Your task to perform on an android device: Add "lenovo thinkpad" to the cart on bestbuy.com, then select checkout. Image 0: 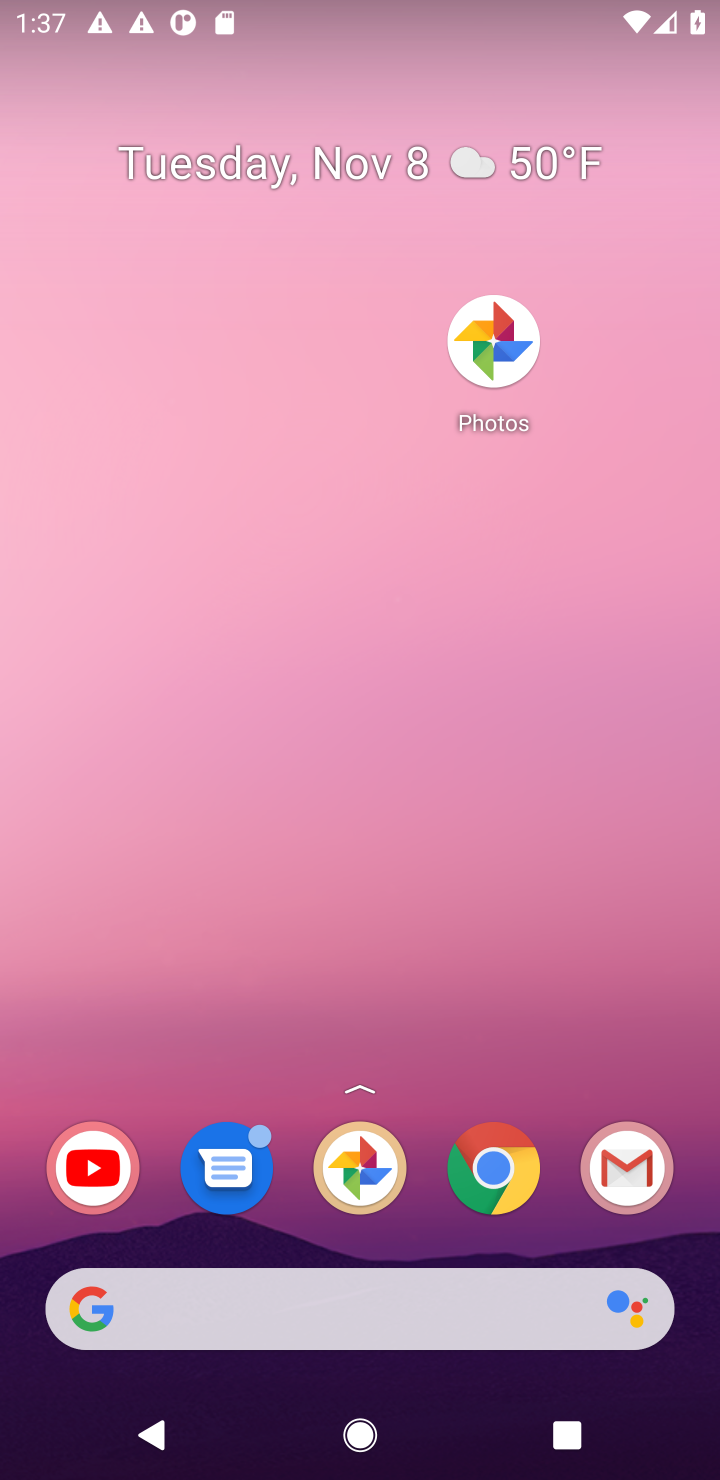
Step 0: drag from (324, 1054) to (281, 66)
Your task to perform on an android device: Add "lenovo thinkpad" to the cart on bestbuy.com, then select checkout. Image 1: 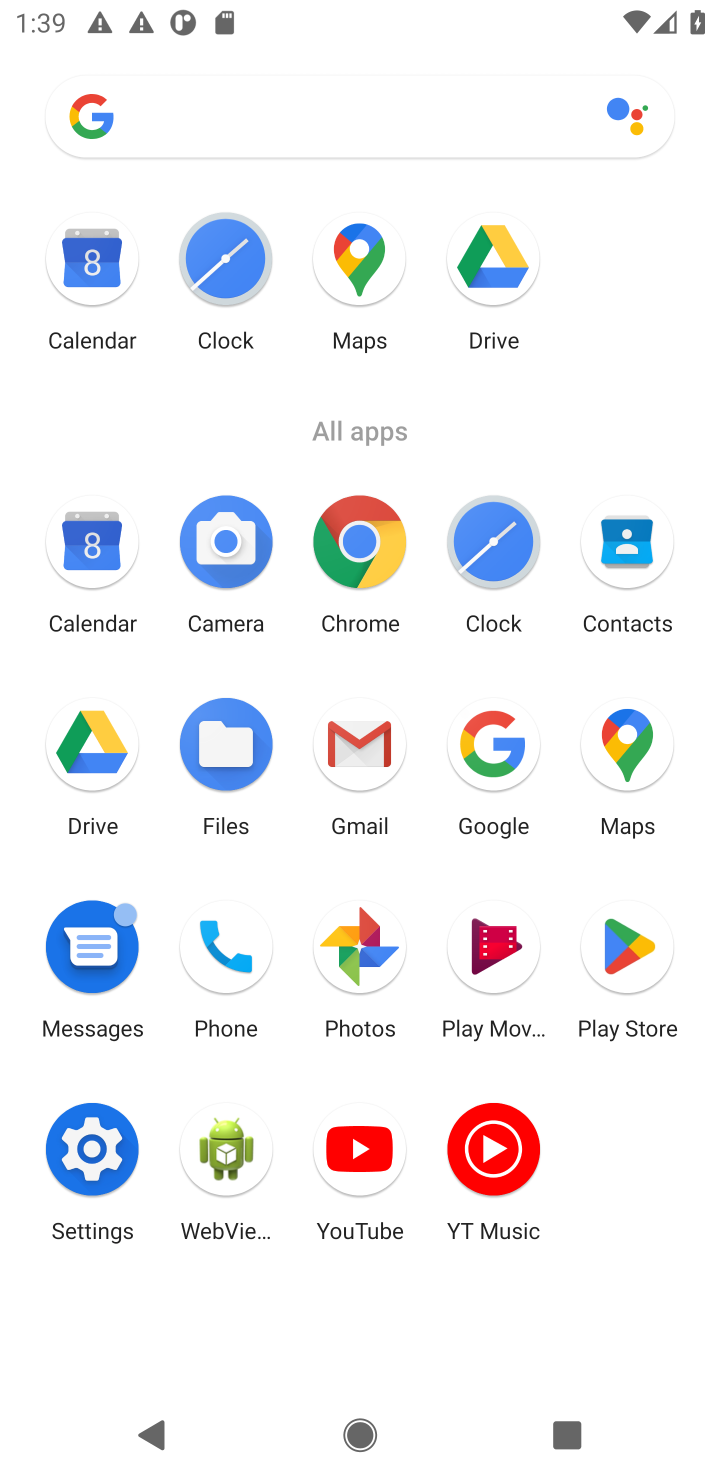
Step 1: click (368, 511)
Your task to perform on an android device: Add "lenovo thinkpad" to the cart on bestbuy.com, then select checkout. Image 2: 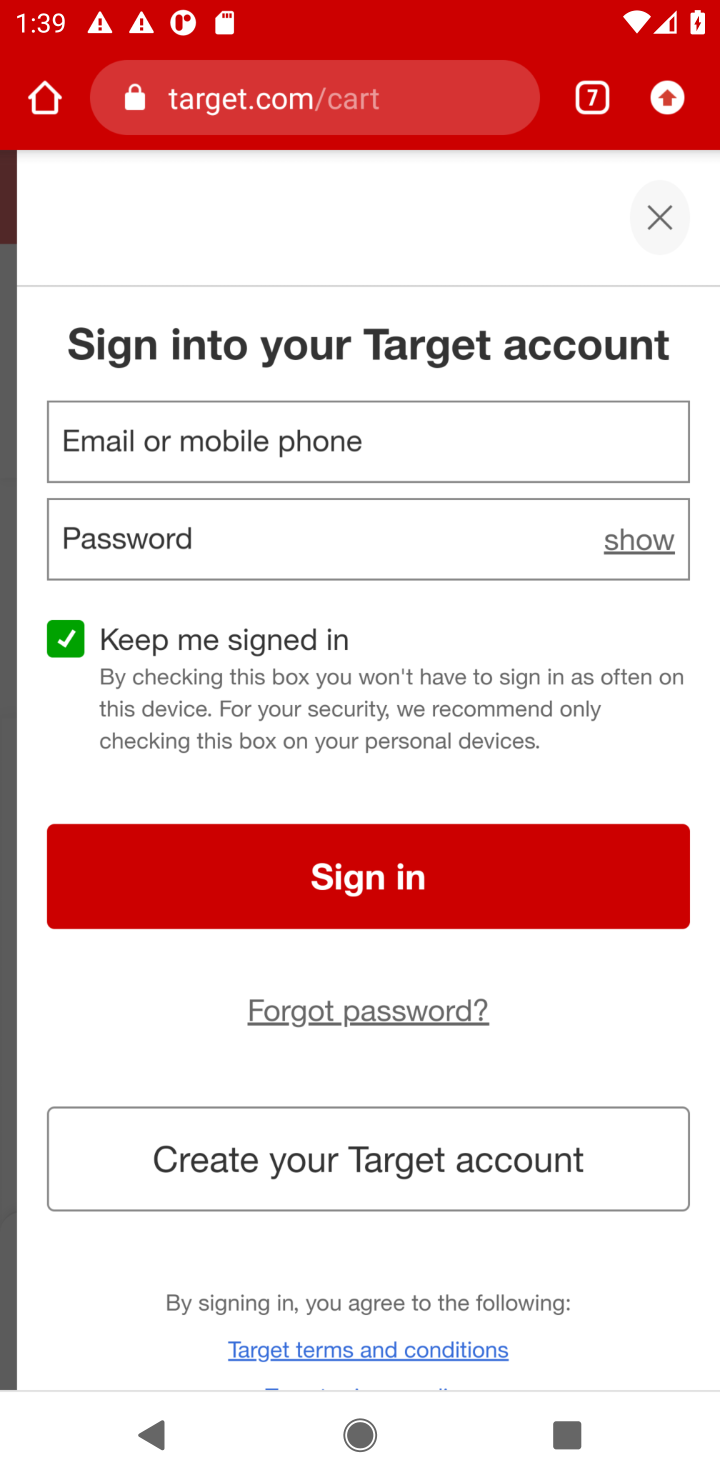
Step 2: click (368, 513)
Your task to perform on an android device: Add "lenovo thinkpad" to the cart on bestbuy.com, then select checkout. Image 3: 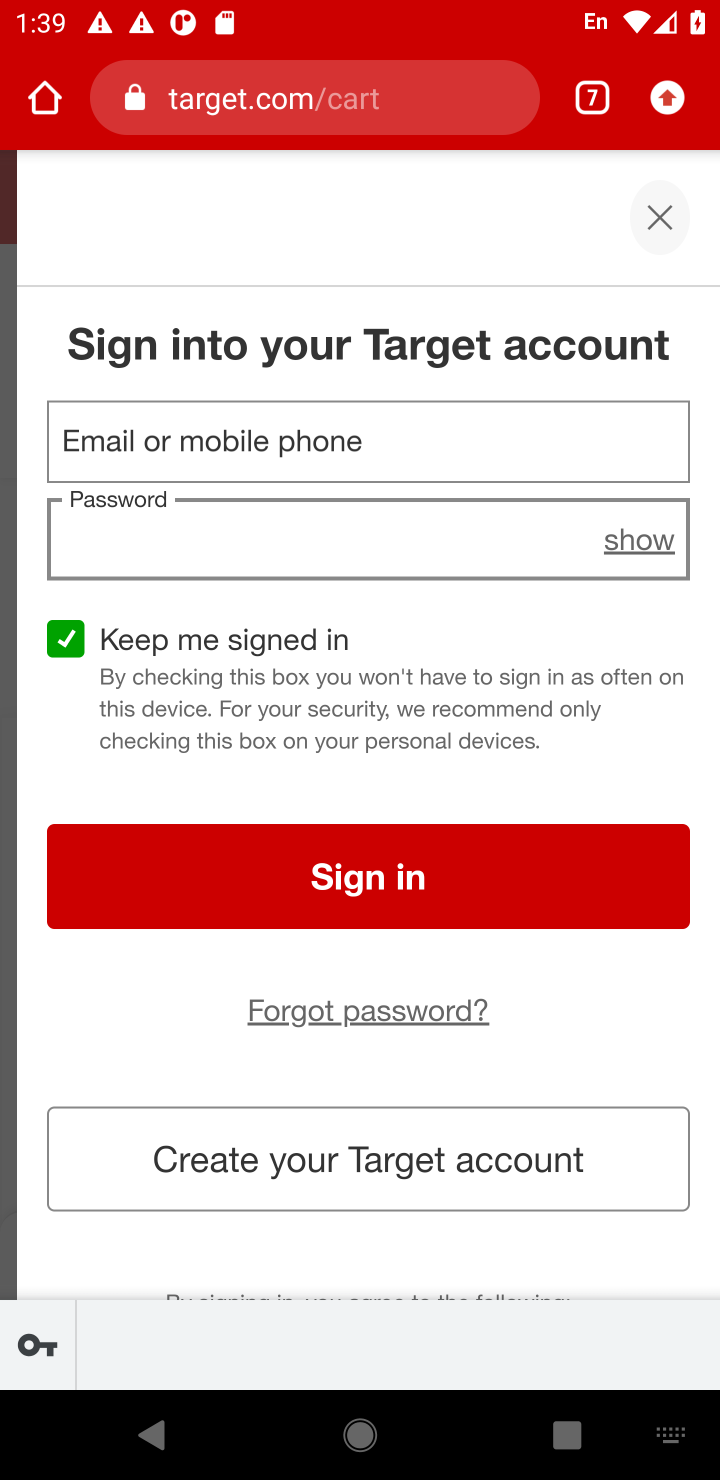
Step 3: click (277, 106)
Your task to perform on an android device: Add "lenovo thinkpad" to the cart on bestbuy.com, then select checkout. Image 4: 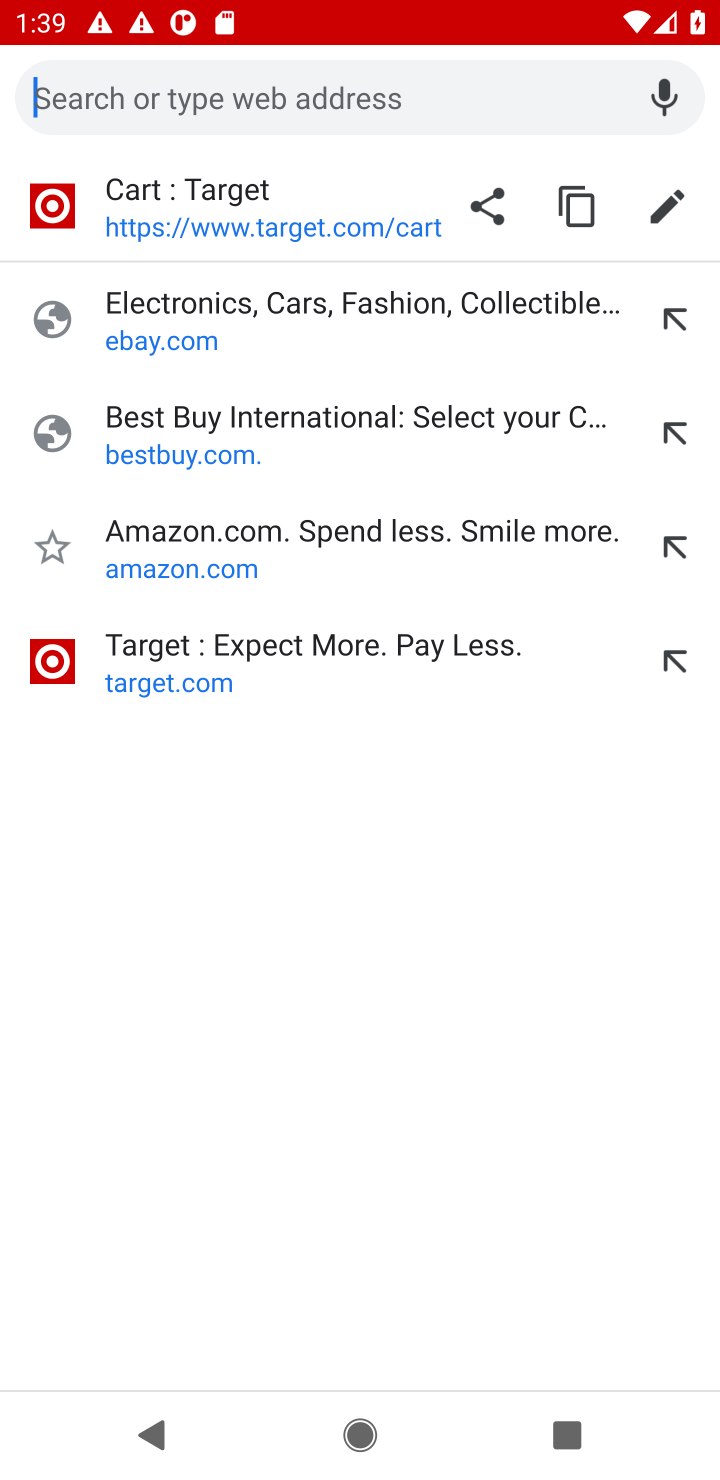
Step 4: press enter
Your task to perform on an android device: Add "lenovo thinkpad" to the cart on bestbuy.com, then select checkout. Image 5: 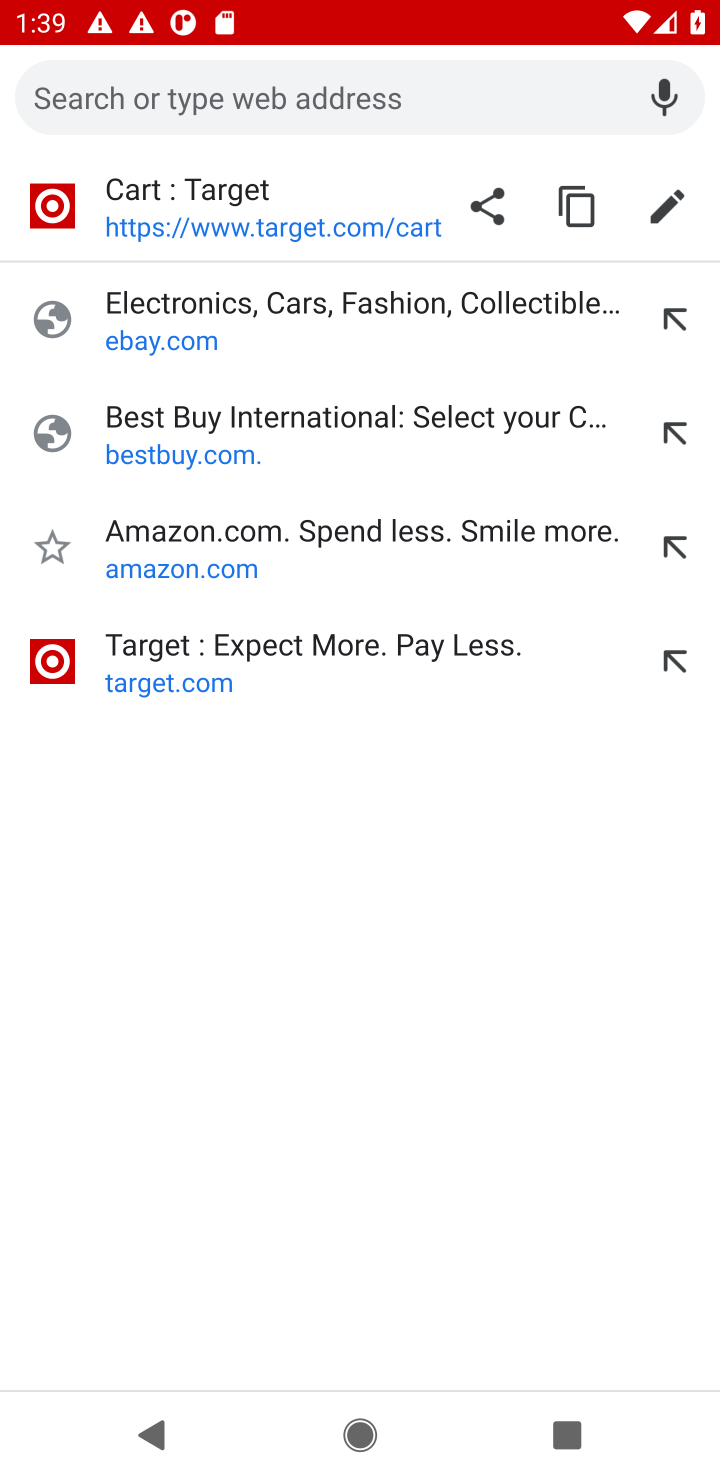
Step 5: type "bestbuy.com,"
Your task to perform on an android device: Add "lenovo thinkpad" to the cart on bestbuy.com, then select checkout. Image 6: 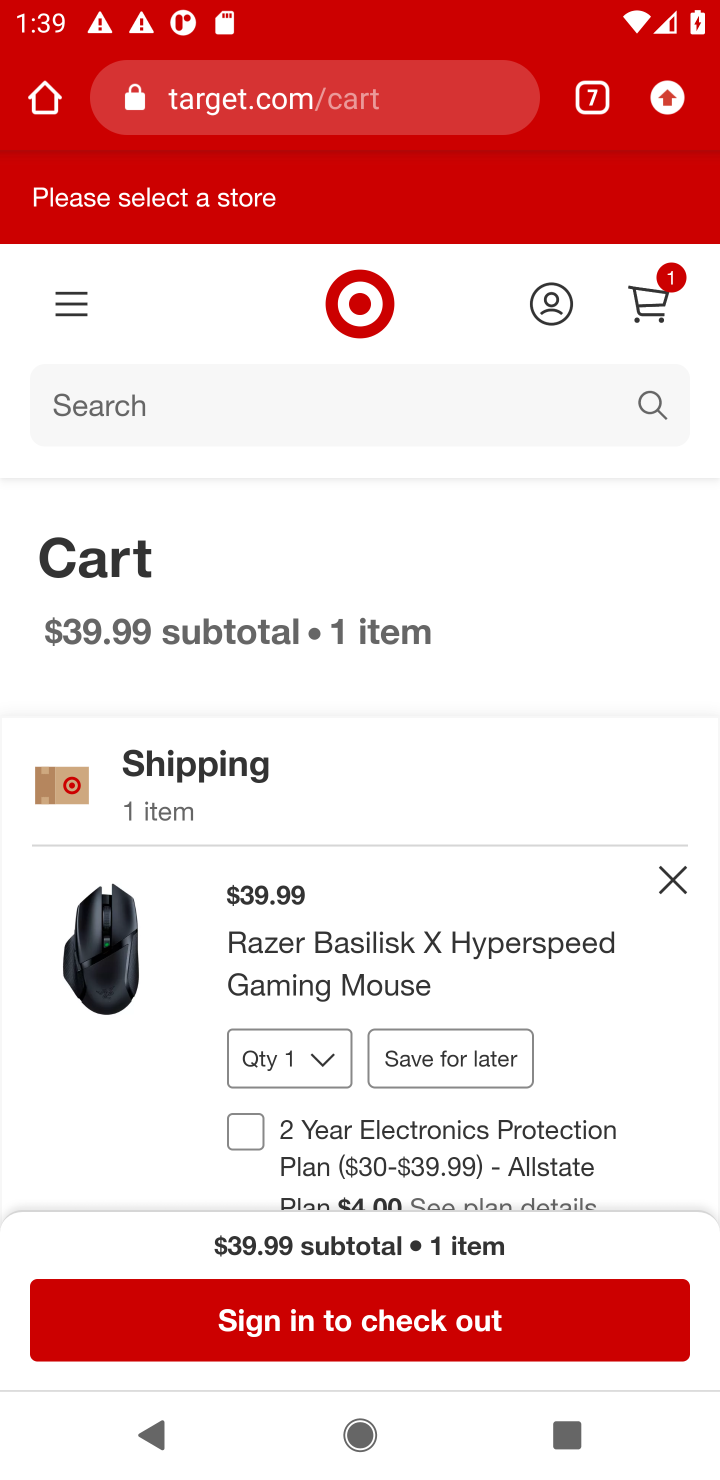
Step 6: click (451, 417)
Your task to perform on an android device: Add "lenovo thinkpad" to the cart on bestbuy.com, then select checkout. Image 7: 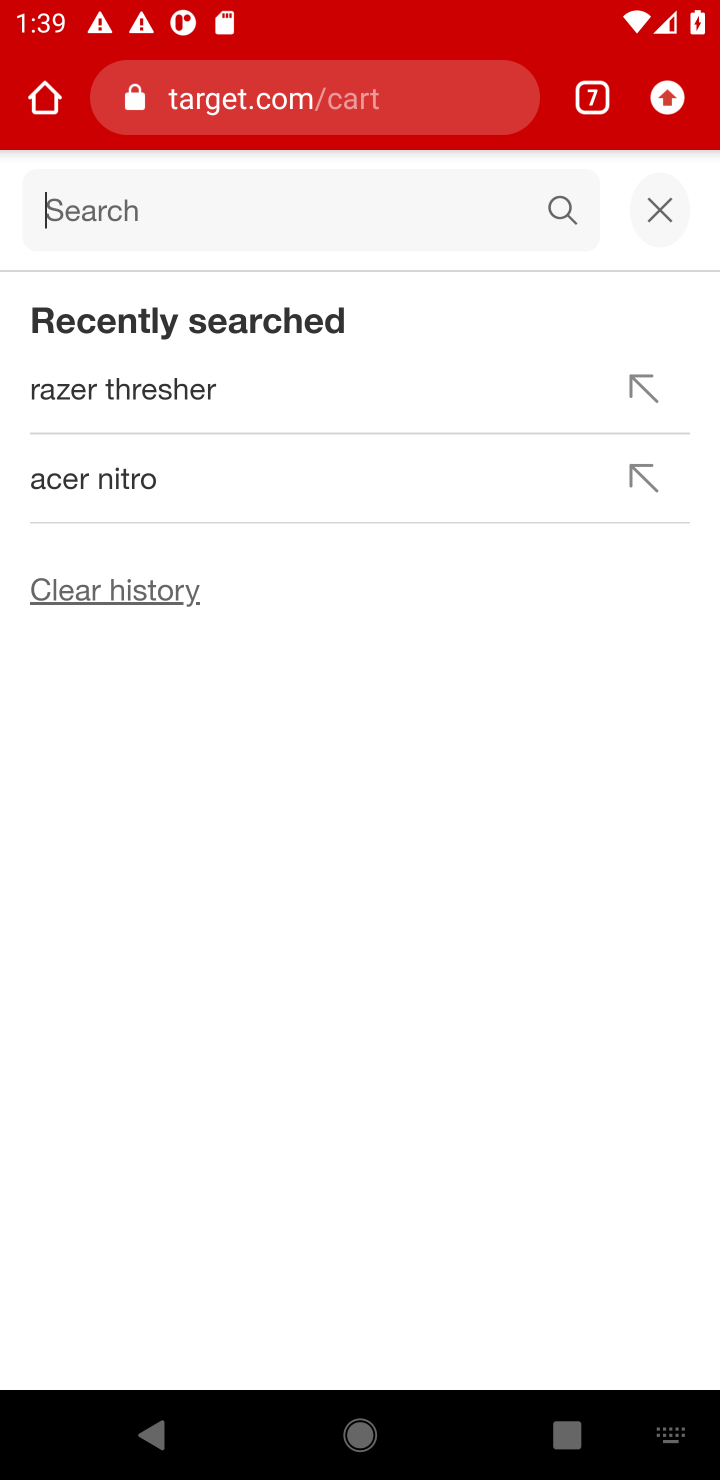
Step 7: type "lenovo thinkpad"
Your task to perform on an android device: Add "lenovo thinkpad" to the cart on bestbuy.com, then select checkout. Image 8: 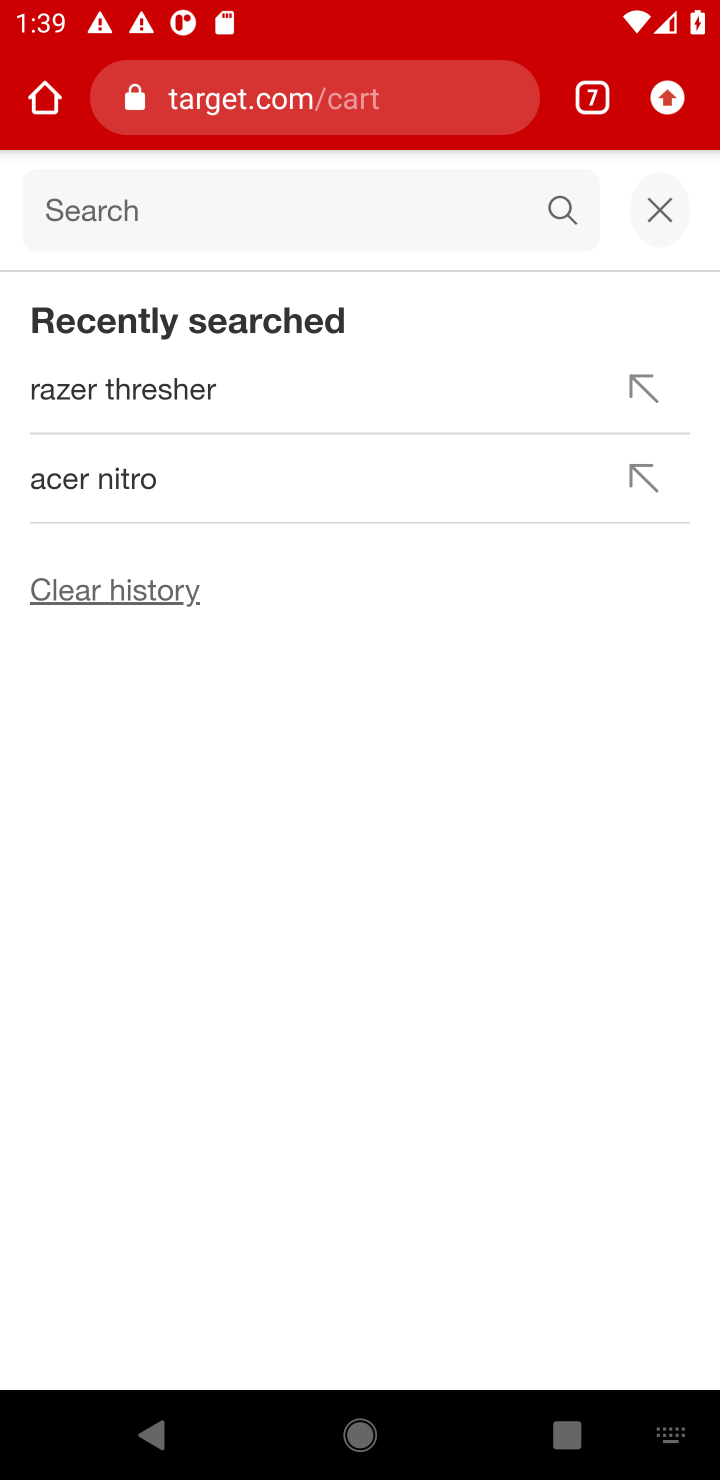
Step 8: press enter
Your task to perform on an android device: Add "lenovo thinkpad" to the cart on bestbuy.com, then select checkout. Image 9: 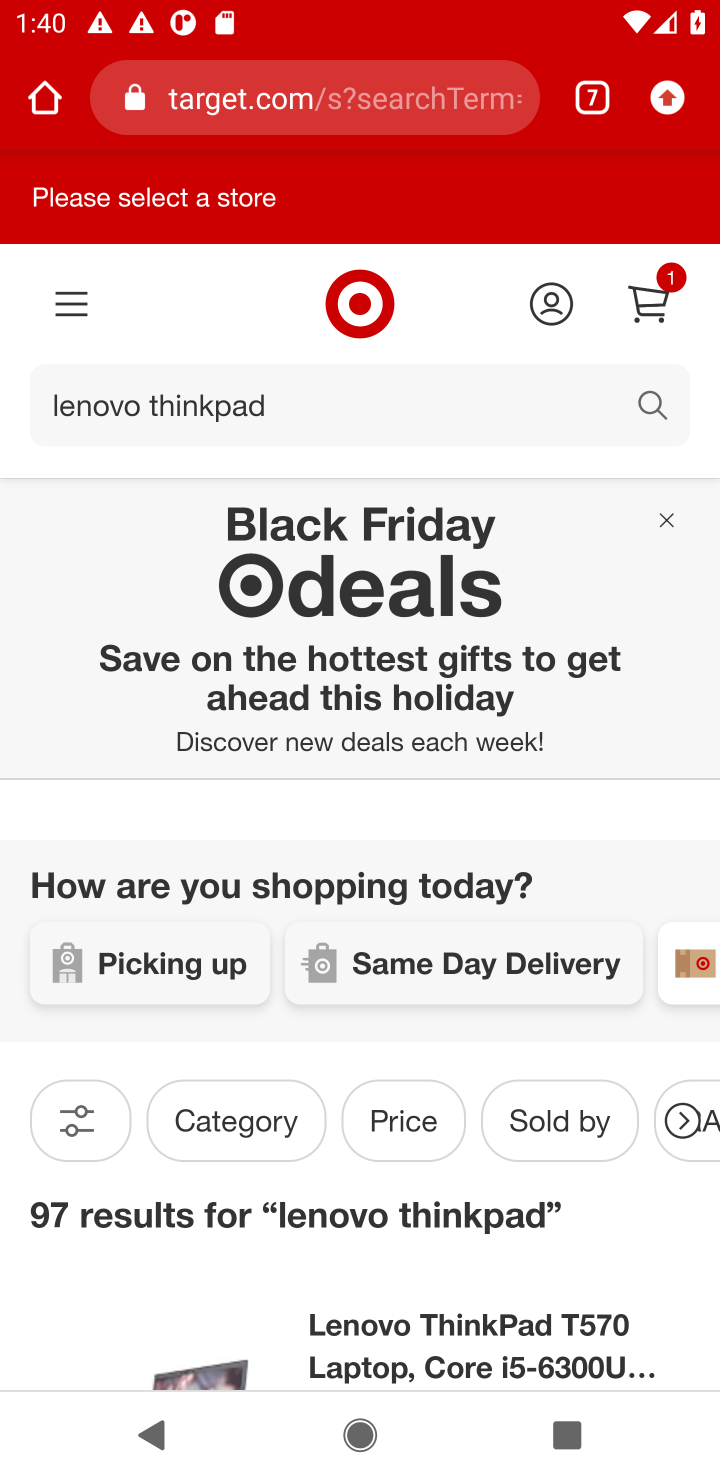
Step 9: drag from (655, 1125) to (714, 726)
Your task to perform on an android device: Add "lenovo thinkpad" to the cart on bestbuy.com, then select checkout. Image 10: 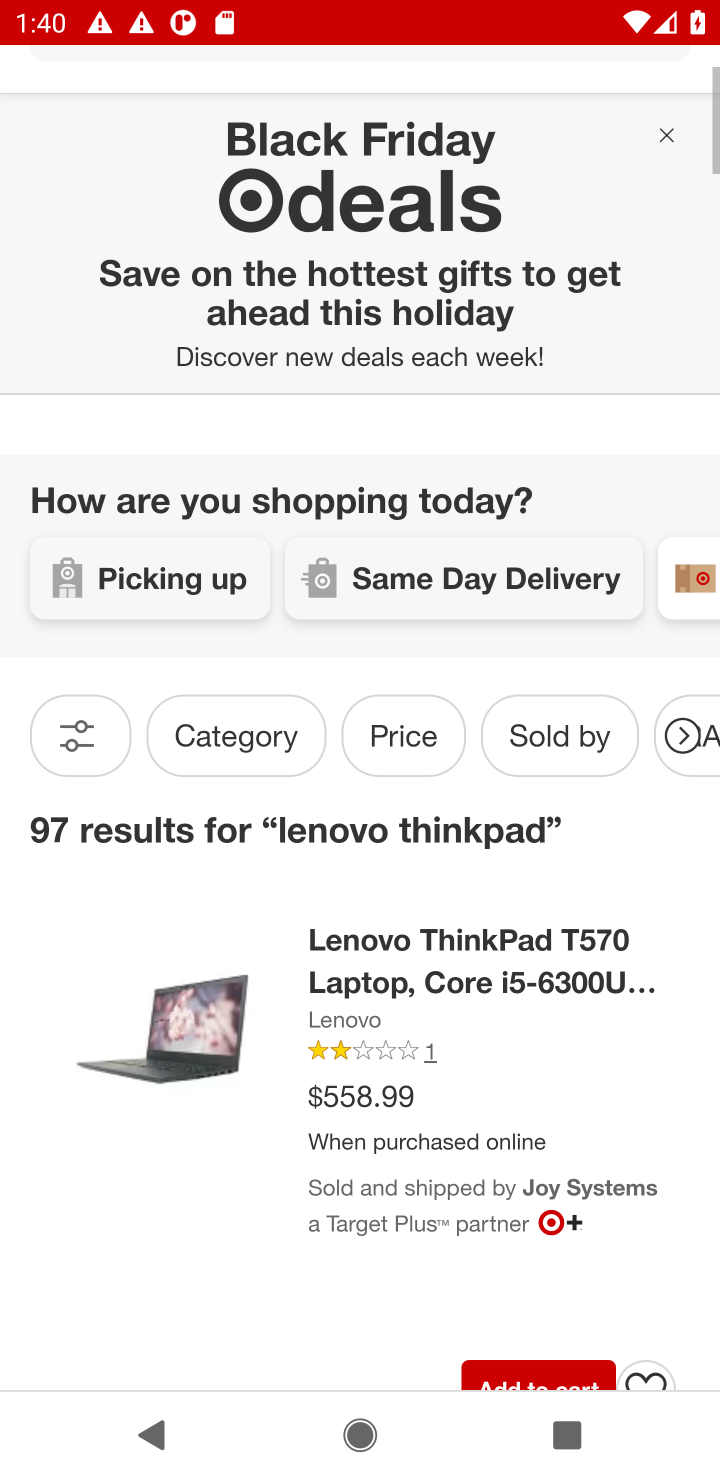
Step 10: drag from (571, 1137) to (594, 540)
Your task to perform on an android device: Add "lenovo thinkpad" to the cart on bestbuy.com, then select checkout. Image 11: 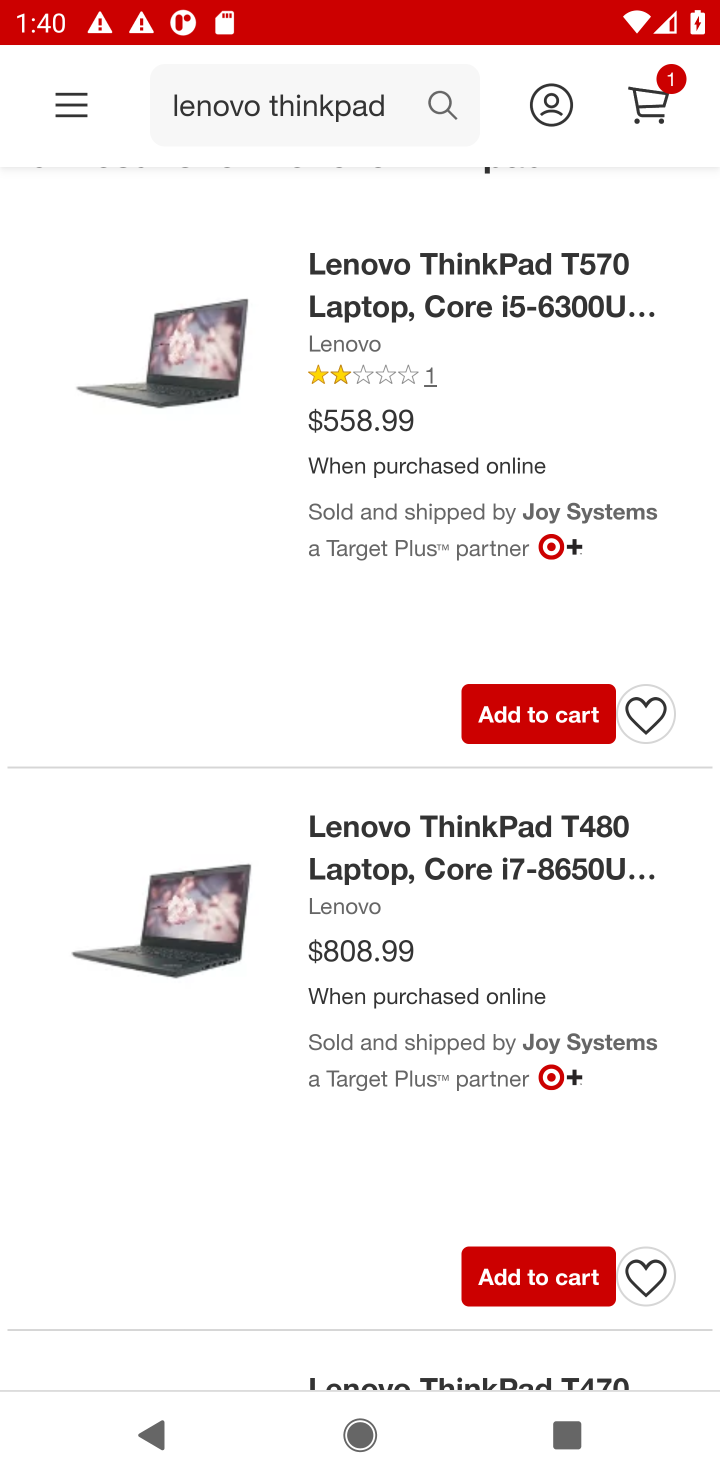
Step 11: click (553, 720)
Your task to perform on an android device: Add "lenovo thinkpad" to the cart on bestbuy.com, then select checkout. Image 12: 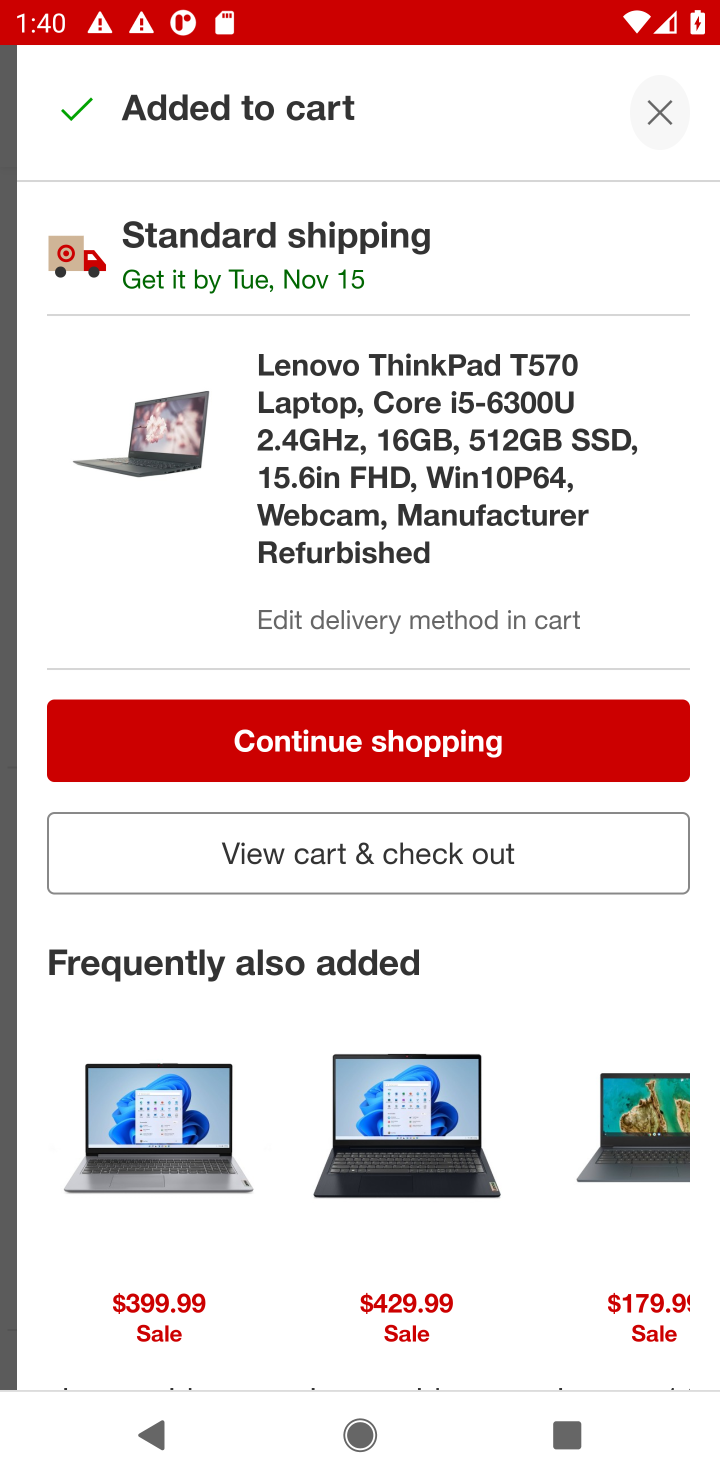
Step 12: click (422, 873)
Your task to perform on an android device: Add "lenovo thinkpad" to the cart on bestbuy.com, then select checkout. Image 13: 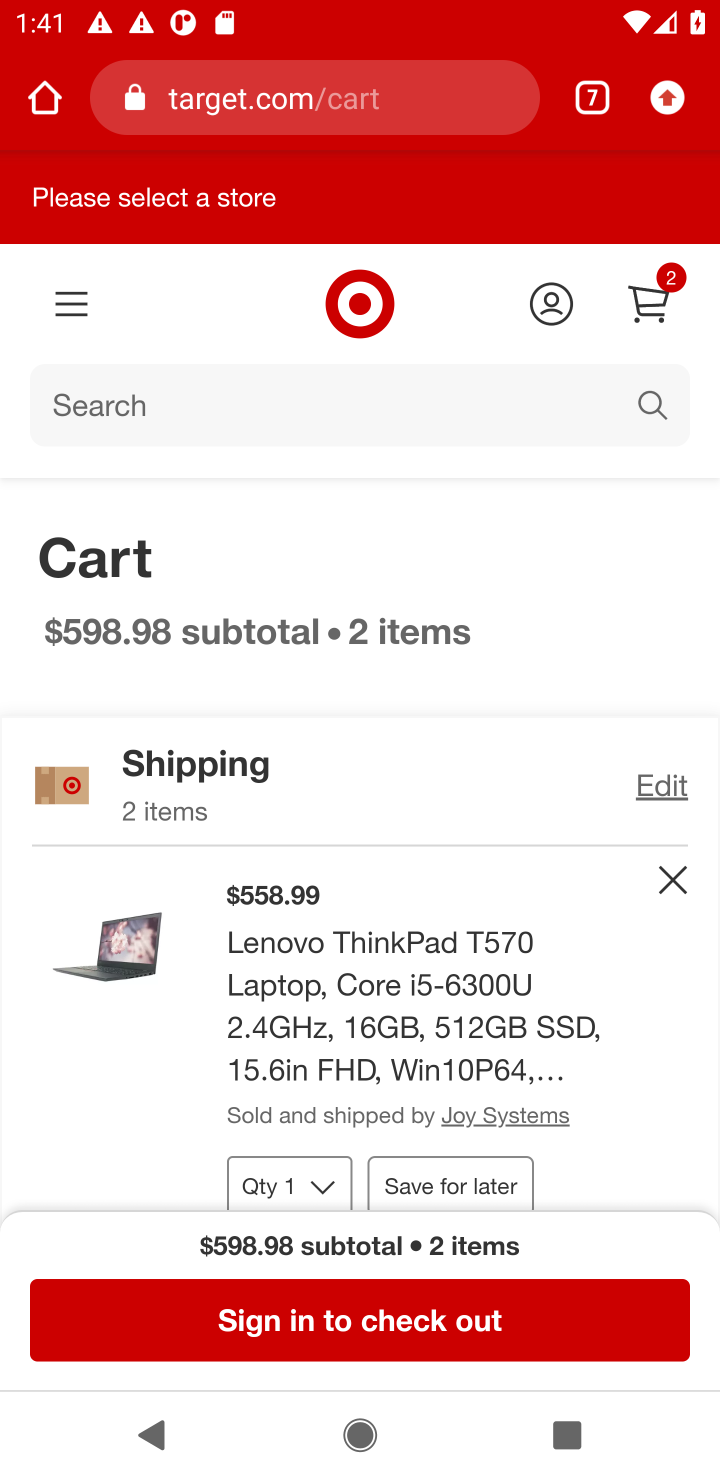
Step 13: task complete